Your task to perform on an android device: toggle airplane mode Image 0: 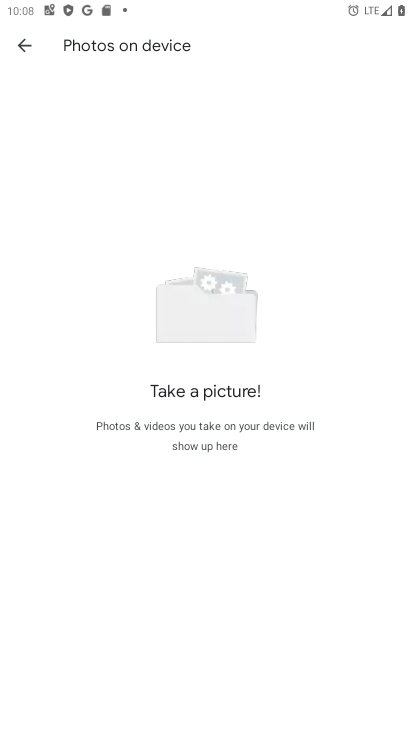
Step 0: press home button
Your task to perform on an android device: toggle airplane mode Image 1: 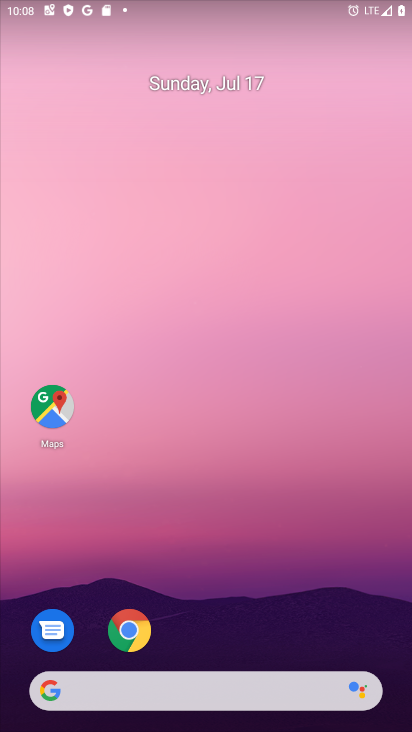
Step 1: drag from (251, 4) to (281, 571)
Your task to perform on an android device: toggle airplane mode Image 2: 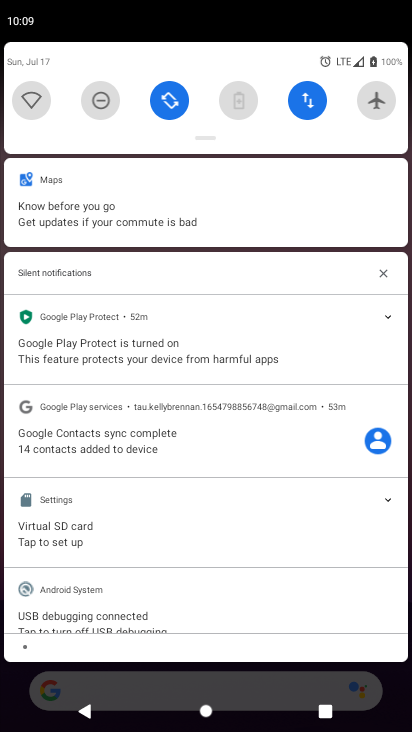
Step 2: click (366, 92)
Your task to perform on an android device: toggle airplane mode Image 3: 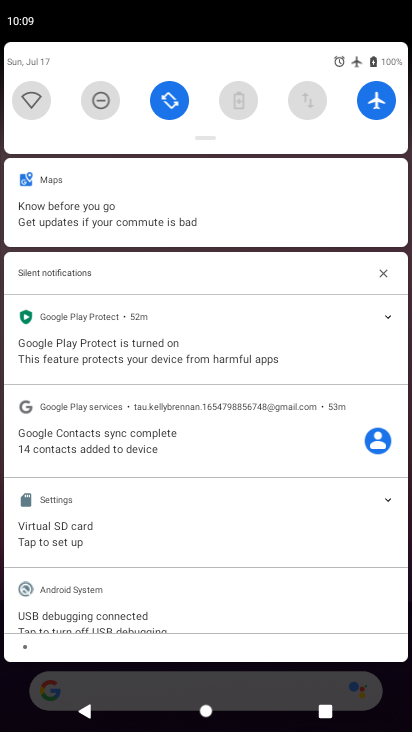
Step 3: task complete